Your task to perform on an android device: Go to Amazon Image 0: 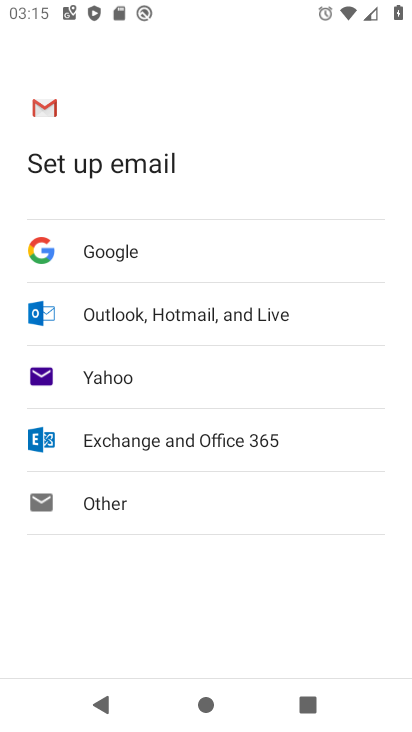
Step 0: press home button
Your task to perform on an android device: Go to Amazon Image 1: 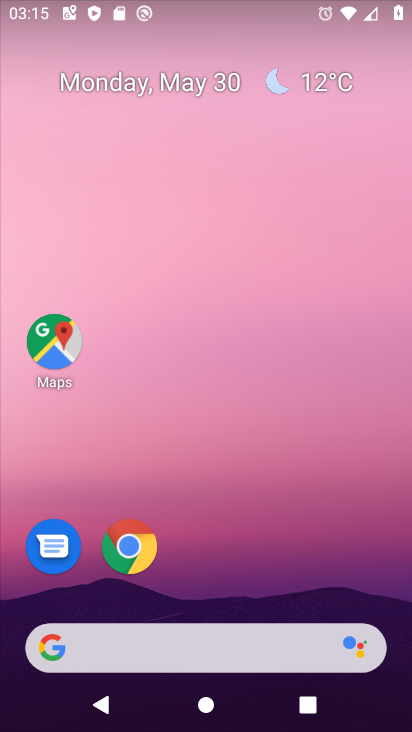
Step 1: click (119, 539)
Your task to perform on an android device: Go to Amazon Image 2: 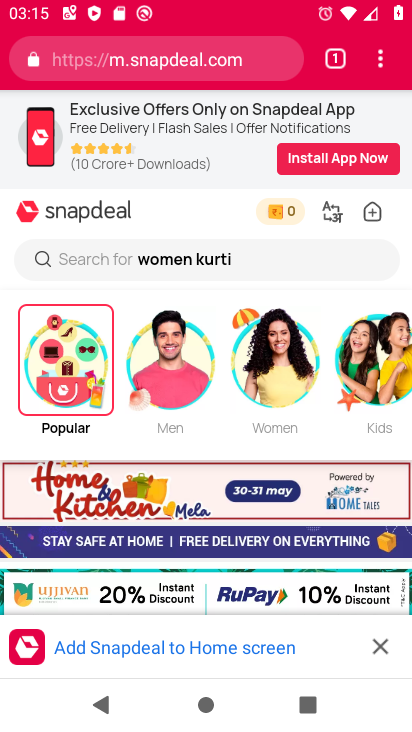
Step 2: click (345, 55)
Your task to perform on an android device: Go to Amazon Image 3: 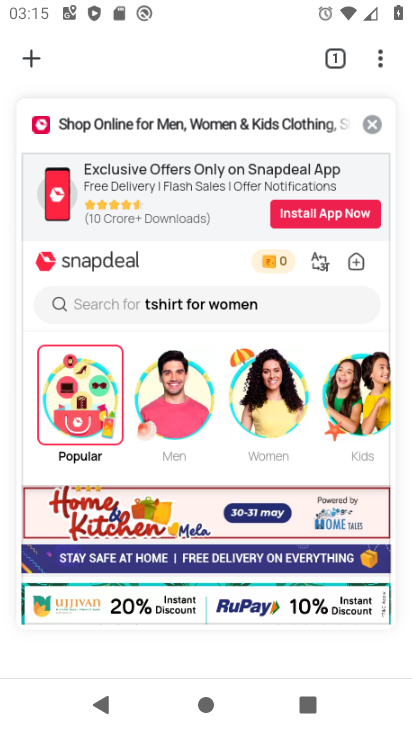
Step 3: click (375, 120)
Your task to perform on an android device: Go to Amazon Image 4: 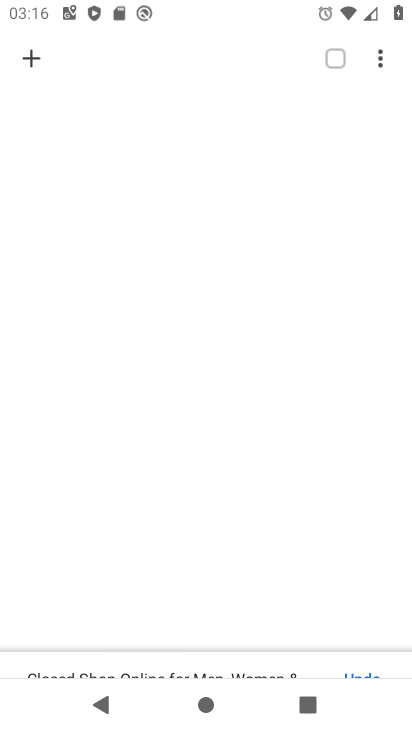
Step 4: click (35, 64)
Your task to perform on an android device: Go to Amazon Image 5: 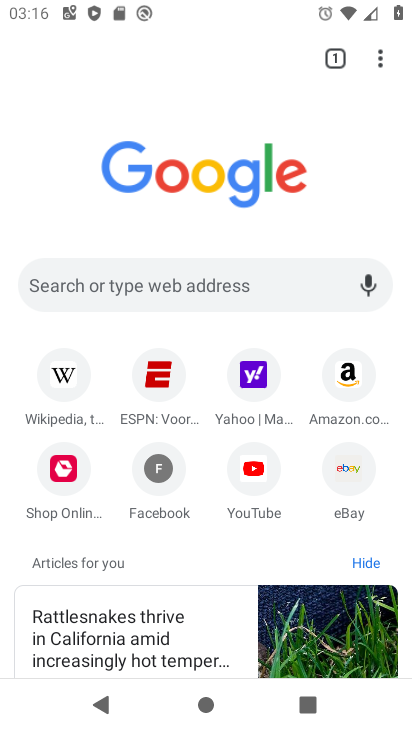
Step 5: click (355, 368)
Your task to perform on an android device: Go to Amazon Image 6: 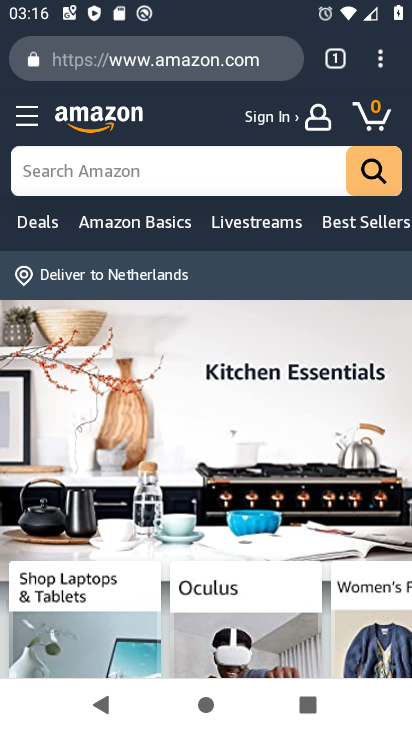
Step 6: task complete